Your task to perform on an android device: Go to Reddit.com Image 0: 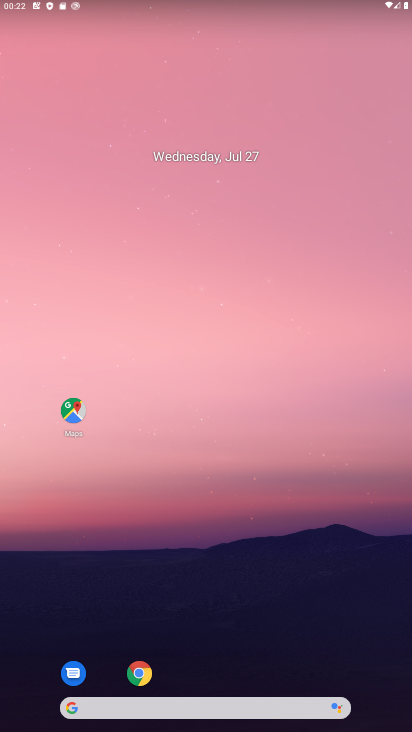
Step 0: drag from (260, 359) to (257, 69)
Your task to perform on an android device: Go to Reddit.com Image 1: 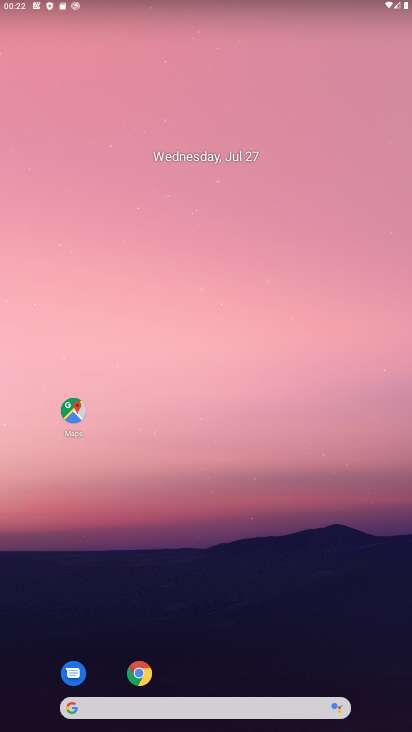
Step 1: drag from (230, 607) to (219, 1)
Your task to perform on an android device: Go to Reddit.com Image 2: 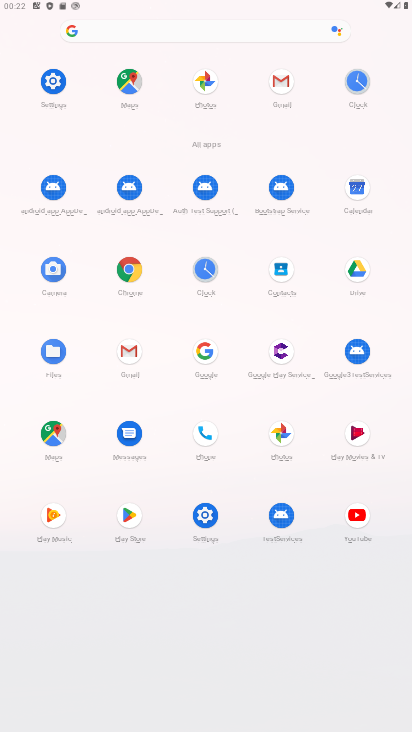
Step 2: click (127, 272)
Your task to perform on an android device: Go to Reddit.com Image 3: 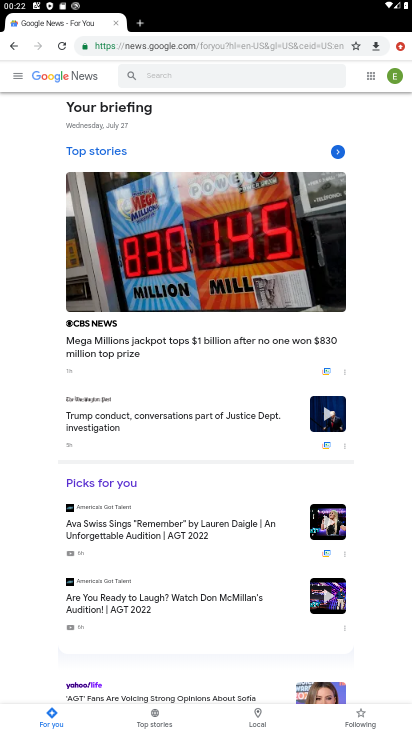
Step 3: click (187, 35)
Your task to perform on an android device: Go to Reddit.com Image 4: 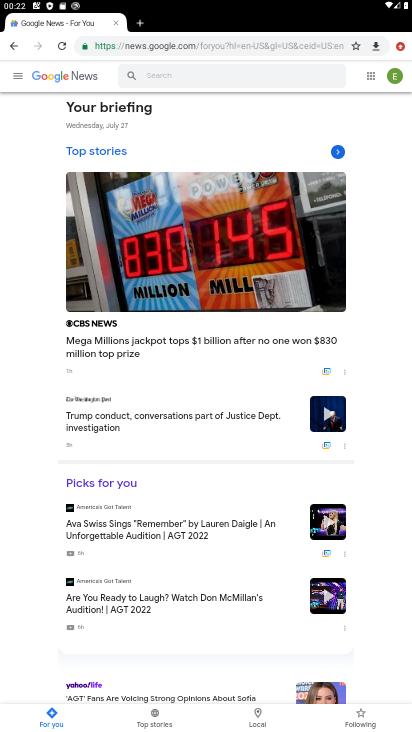
Step 4: click (209, 42)
Your task to perform on an android device: Go to Reddit.com Image 5: 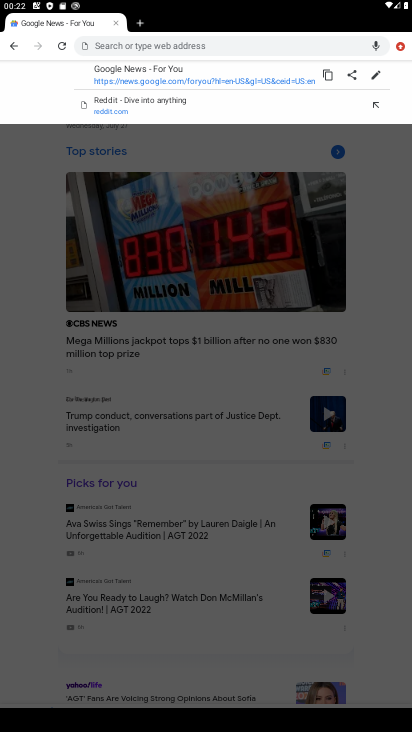
Step 5: click (113, 110)
Your task to perform on an android device: Go to Reddit.com Image 6: 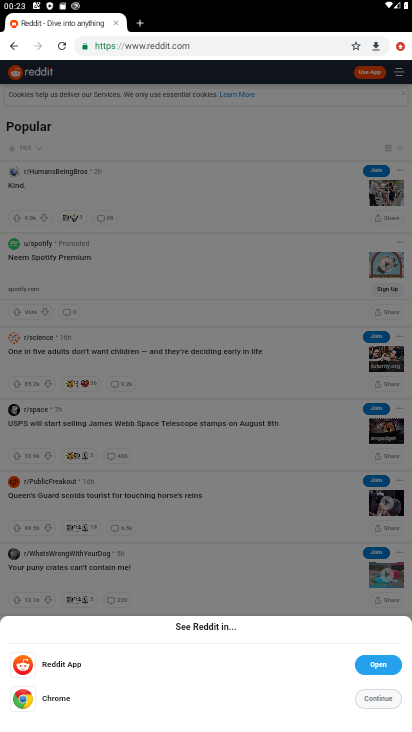
Step 6: task complete